Your task to perform on an android device: show emergency info Image 0: 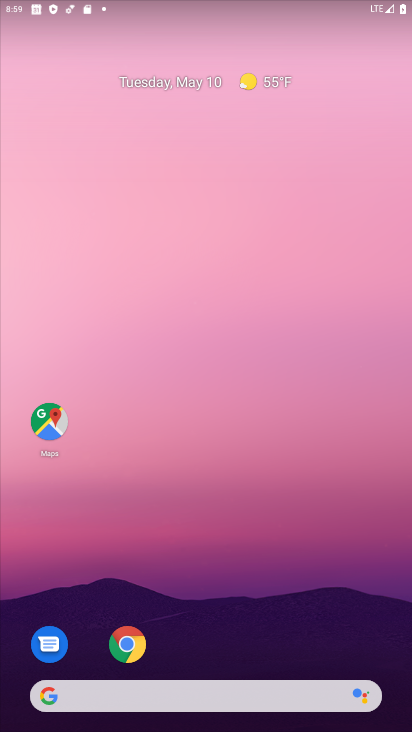
Step 0: drag from (170, 597) to (192, 200)
Your task to perform on an android device: show emergency info Image 1: 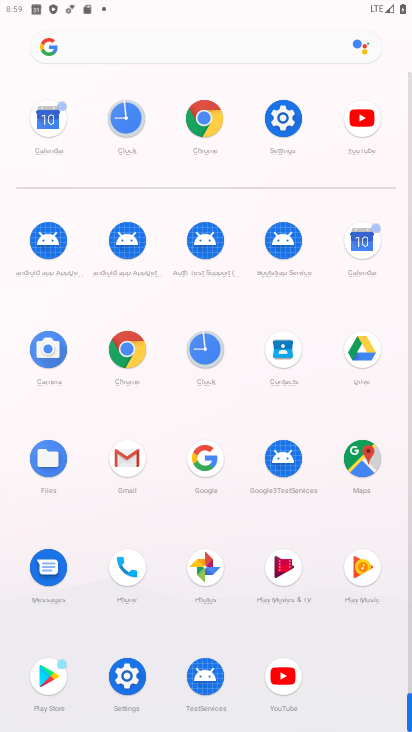
Step 1: click (283, 147)
Your task to perform on an android device: show emergency info Image 2: 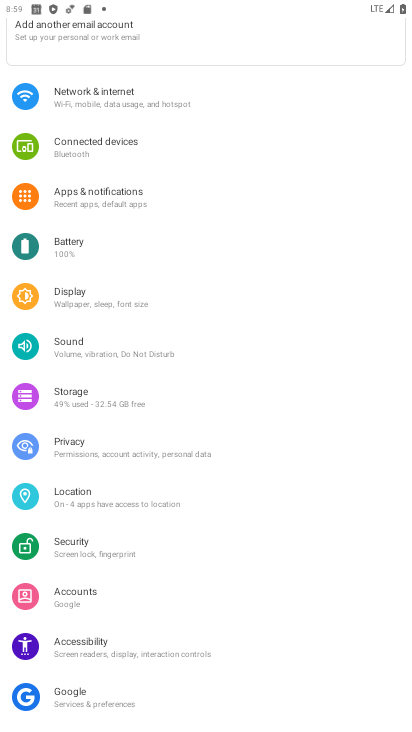
Step 2: drag from (201, 517) to (220, 40)
Your task to perform on an android device: show emergency info Image 3: 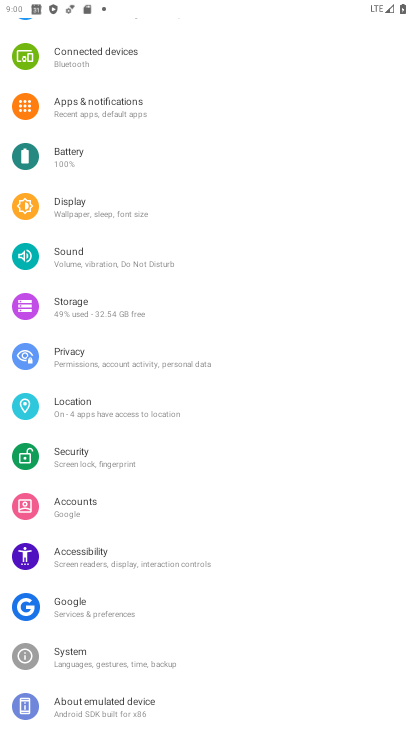
Step 3: click (190, 699)
Your task to perform on an android device: show emergency info Image 4: 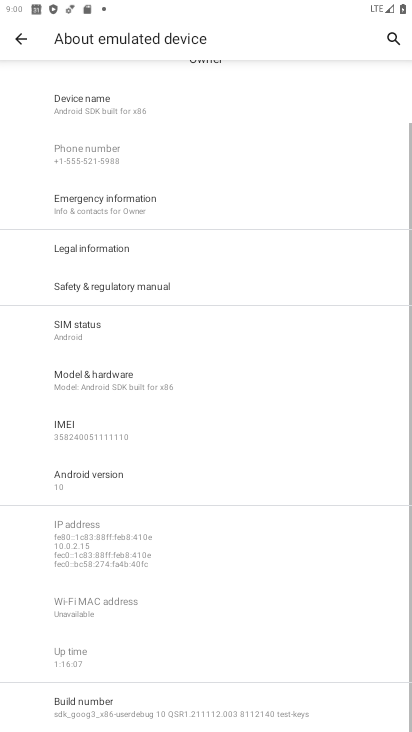
Step 4: click (158, 189)
Your task to perform on an android device: show emergency info Image 5: 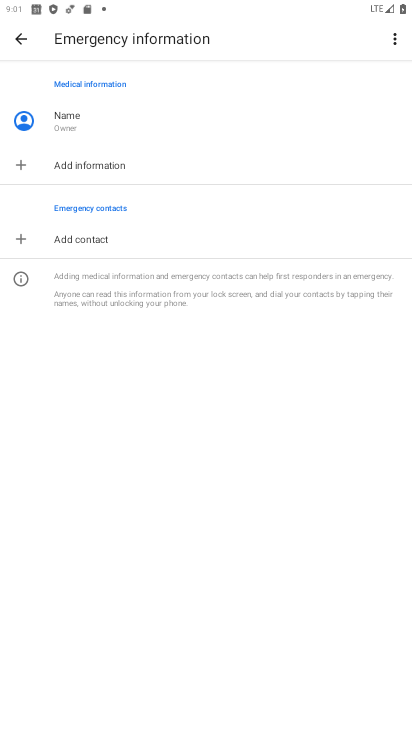
Step 5: task complete